Your task to perform on an android device: Open location settings Image 0: 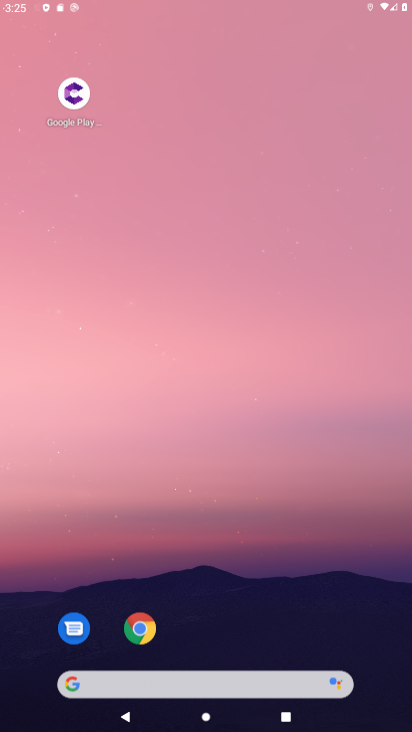
Step 0: press home button
Your task to perform on an android device: Open location settings Image 1: 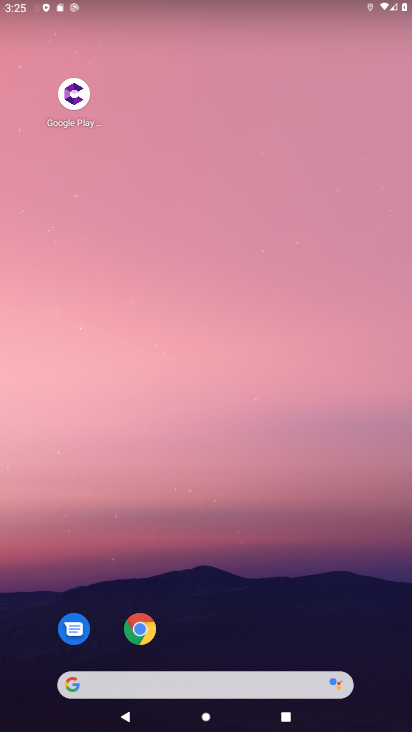
Step 1: drag from (265, 609) to (313, 101)
Your task to perform on an android device: Open location settings Image 2: 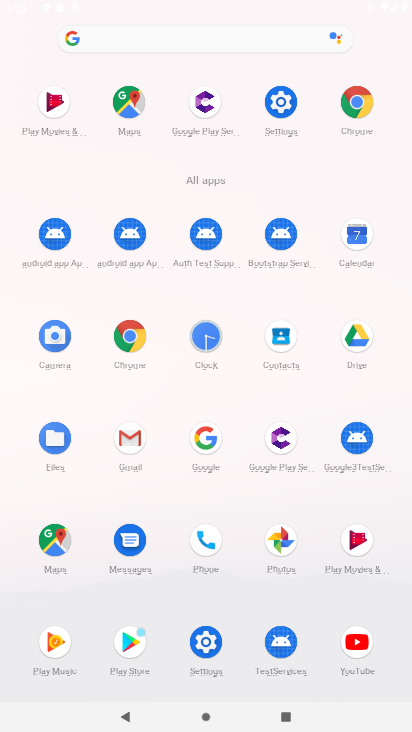
Step 2: click (285, 100)
Your task to perform on an android device: Open location settings Image 3: 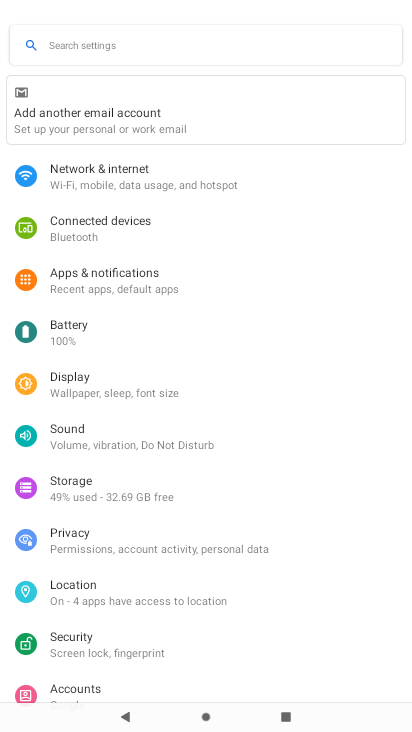
Step 3: click (83, 591)
Your task to perform on an android device: Open location settings Image 4: 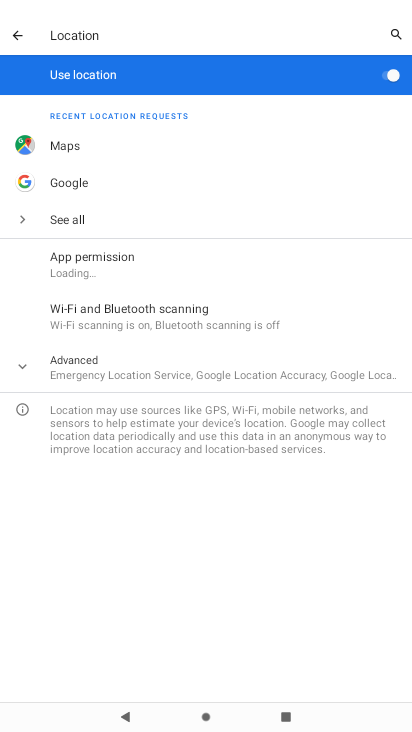
Step 4: task complete